Your task to perform on an android device: turn on the 24-hour format for clock Image 0: 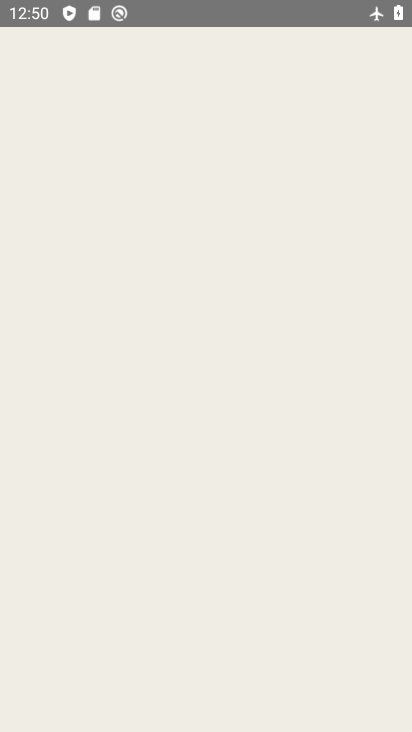
Step 0: click (57, 177)
Your task to perform on an android device: turn on the 24-hour format for clock Image 1: 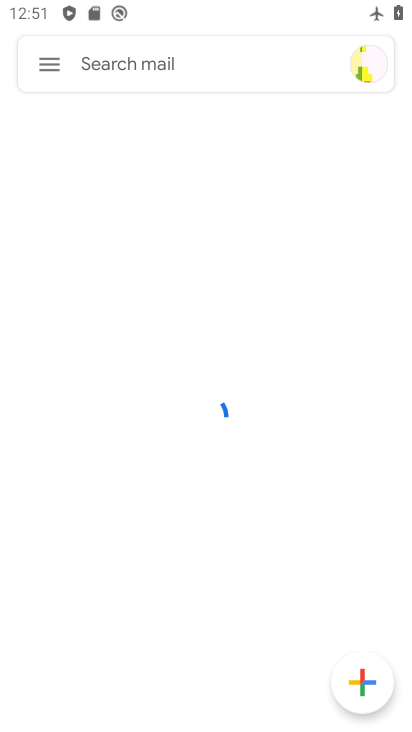
Step 1: press home button
Your task to perform on an android device: turn on the 24-hour format for clock Image 2: 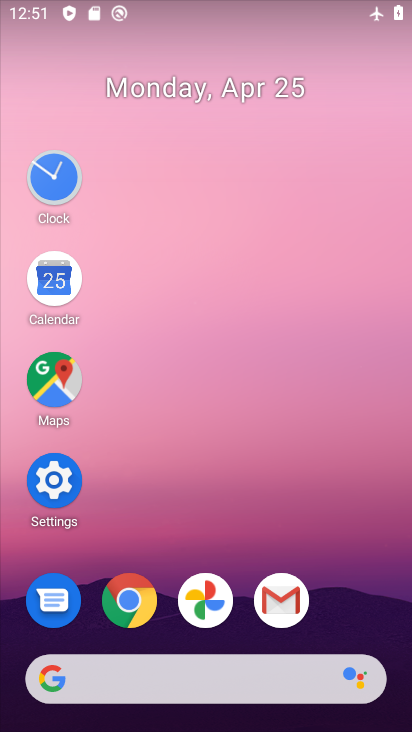
Step 2: click (44, 192)
Your task to perform on an android device: turn on the 24-hour format for clock Image 3: 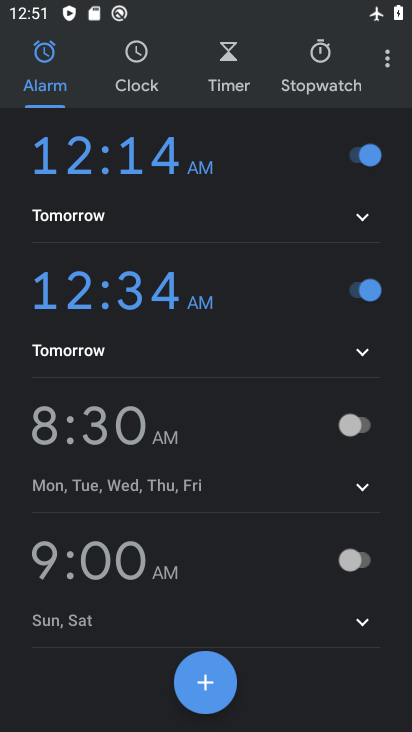
Step 3: click (387, 54)
Your task to perform on an android device: turn on the 24-hour format for clock Image 4: 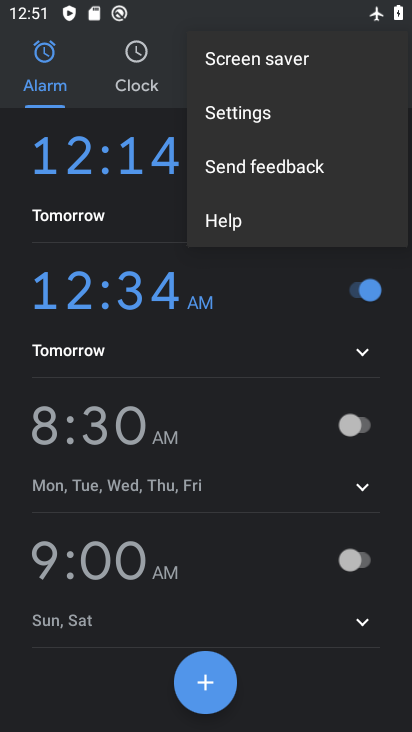
Step 4: click (247, 115)
Your task to perform on an android device: turn on the 24-hour format for clock Image 5: 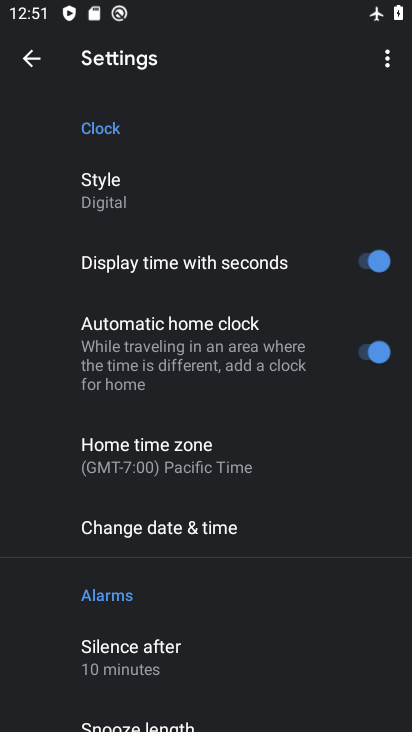
Step 5: click (185, 527)
Your task to perform on an android device: turn on the 24-hour format for clock Image 6: 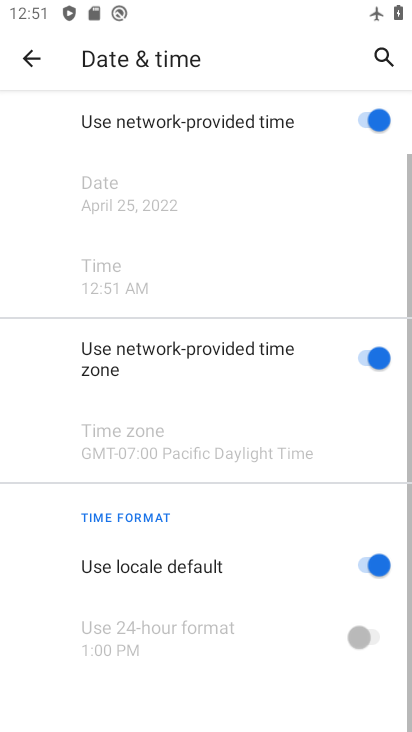
Step 6: drag from (185, 527) to (114, 102)
Your task to perform on an android device: turn on the 24-hour format for clock Image 7: 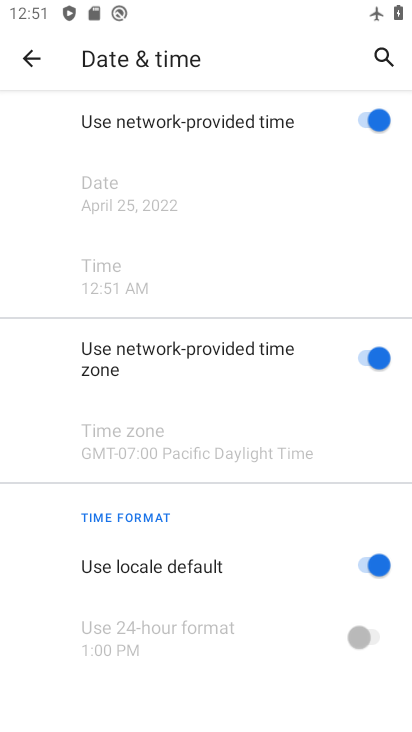
Step 7: click (366, 628)
Your task to perform on an android device: turn on the 24-hour format for clock Image 8: 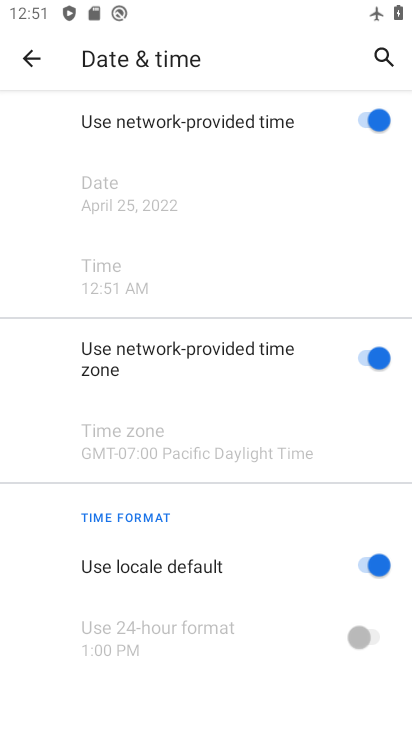
Step 8: click (380, 569)
Your task to perform on an android device: turn on the 24-hour format for clock Image 9: 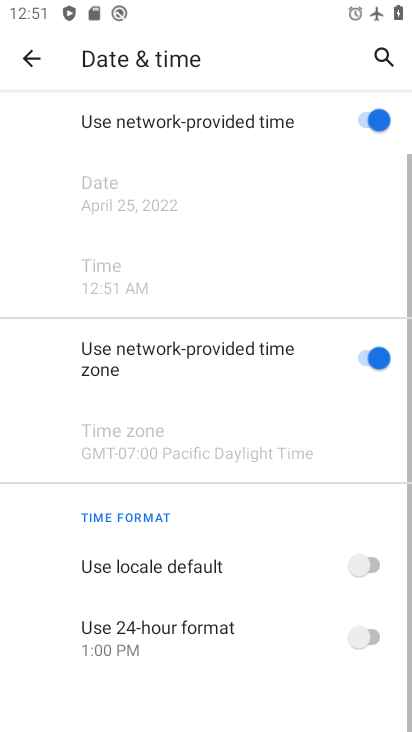
Step 9: click (358, 641)
Your task to perform on an android device: turn on the 24-hour format for clock Image 10: 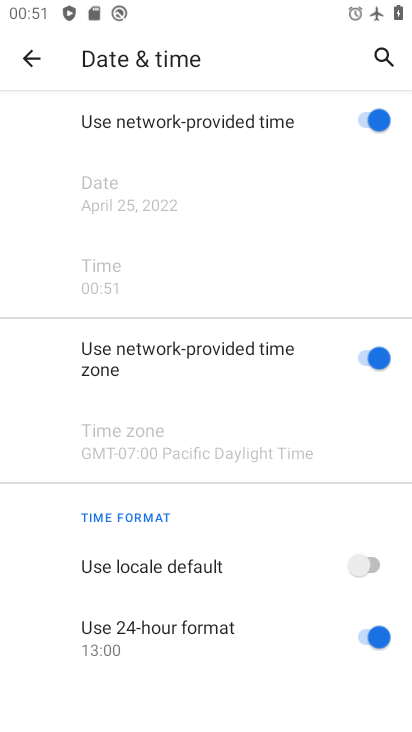
Step 10: task complete